Your task to perform on an android device: turn off picture-in-picture Image 0: 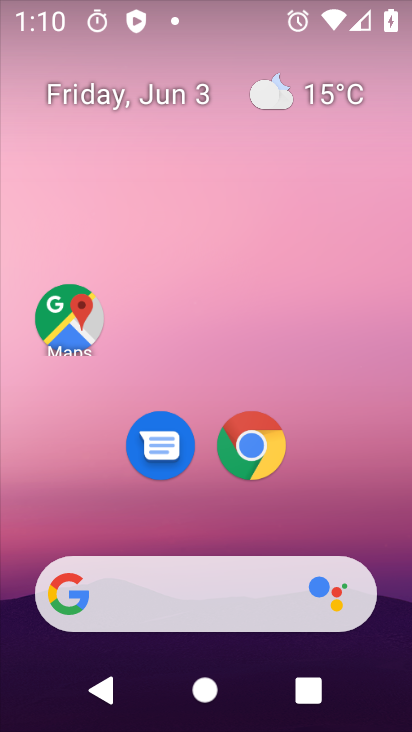
Step 0: click (244, 455)
Your task to perform on an android device: turn off picture-in-picture Image 1: 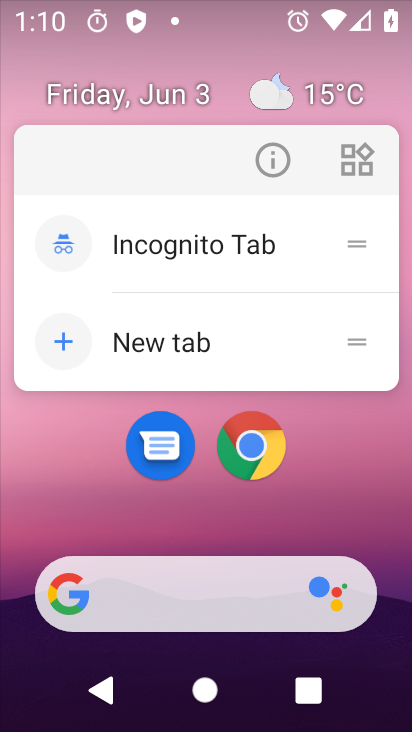
Step 1: click (286, 146)
Your task to perform on an android device: turn off picture-in-picture Image 2: 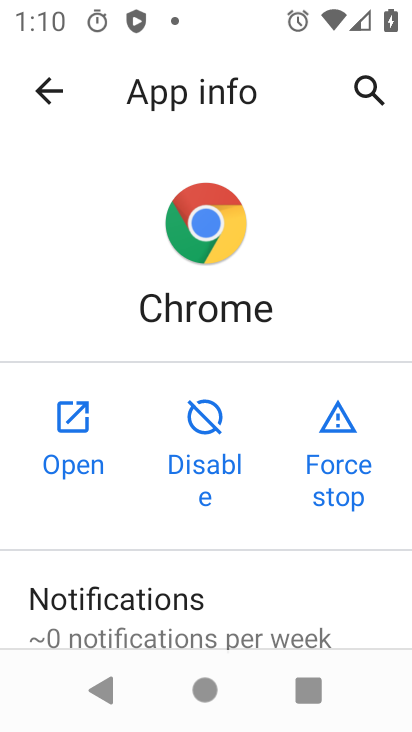
Step 2: drag from (108, 629) to (278, 97)
Your task to perform on an android device: turn off picture-in-picture Image 3: 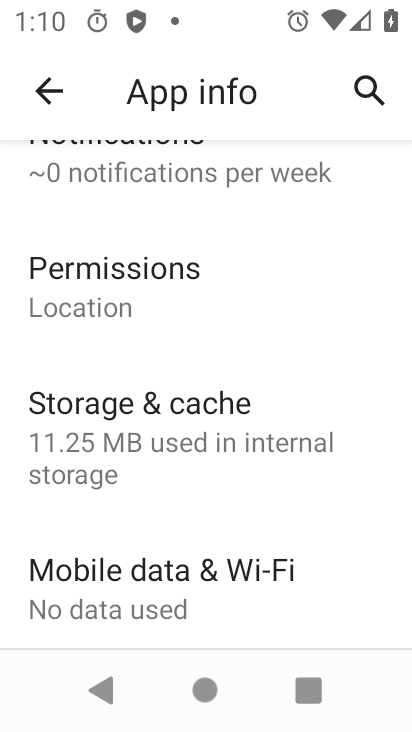
Step 3: drag from (125, 593) to (239, 185)
Your task to perform on an android device: turn off picture-in-picture Image 4: 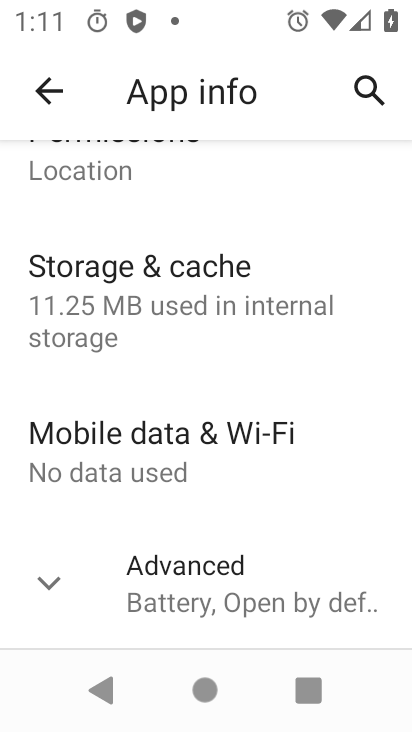
Step 4: drag from (168, 540) to (190, 252)
Your task to perform on an android device: turn off picture-in-picture Image 5: 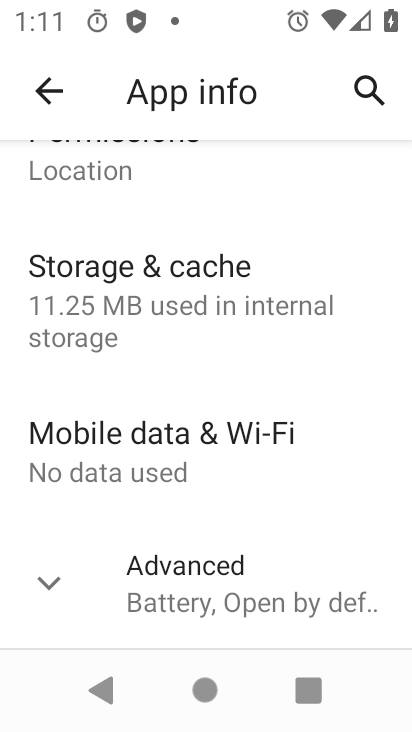
Step 5: drag from (217, 535) to (292, 55)
Your task to perform on an android device: turn off picture-in-picture Image 6: 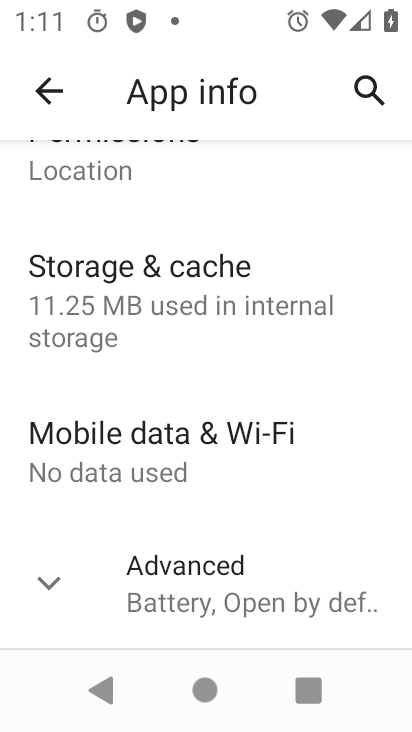
Step 6: click (221, 574)
Your task to perform on an android device: turn off picture-in-picture Image 7: 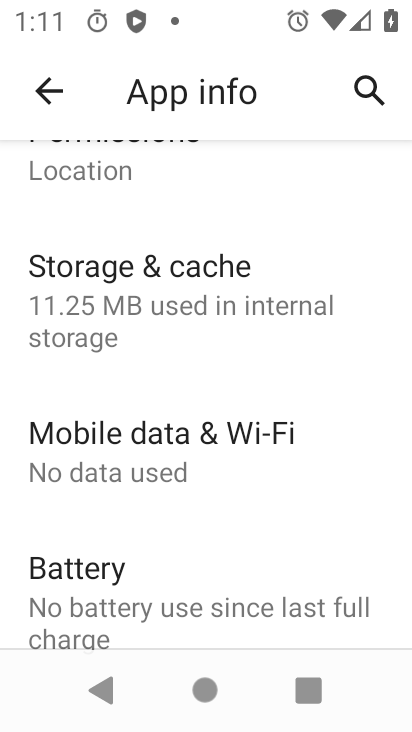
Step 7: drag from (148, 604) to (196, 144)
Your task to perform on an android device: turn off picture-in-picture Image 8: 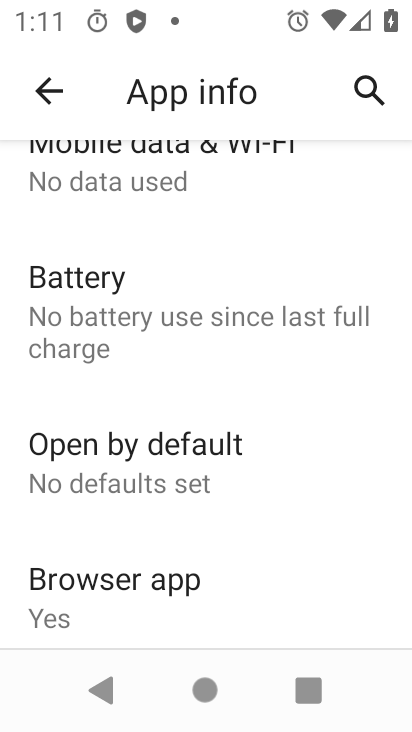
Step 8: drag from (141, 581) to (273, 142)
Your task to perform on an android device: turn off picture-in-picture Image 9: 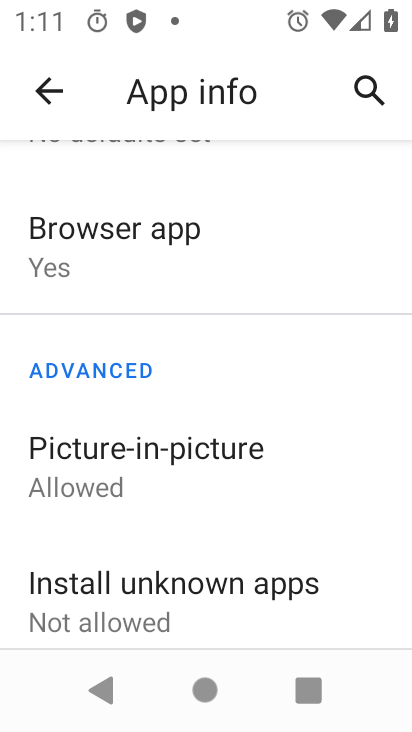
Step 9: click (176, 459)
Your task to perform on an android device: turn off picture-in-picture Image 10: 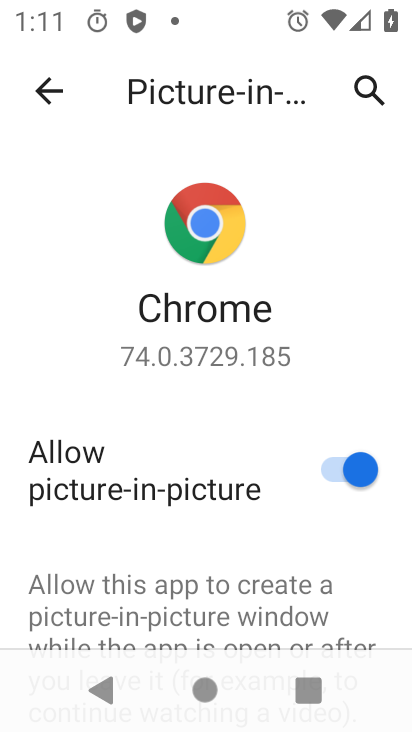
Step 10: click (351, 479)
Your task to perform on an android device: turn off picture-in-picture Image 11: 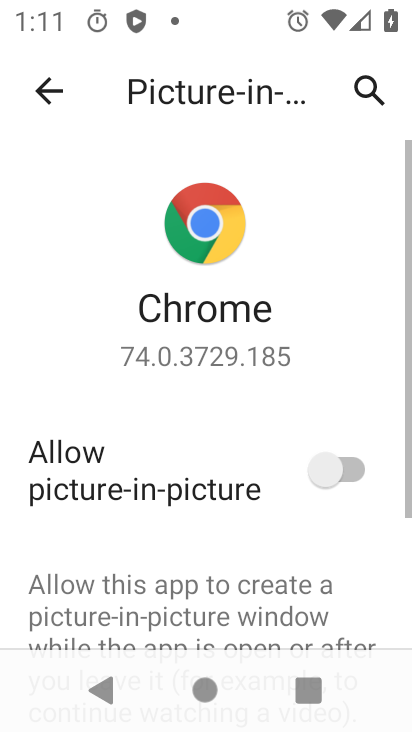
Step 11: task complete